Your task to perform on an android device: see tabs open on other devices in the chrome app Image 0: 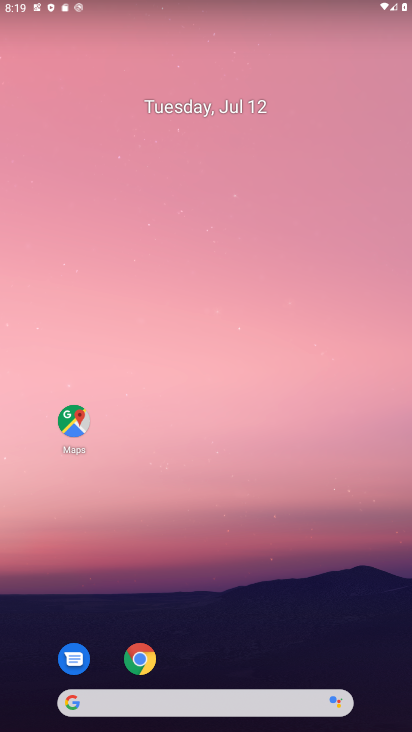
Step 0: click (143, 657)
Your task to perform on an android device: see tabs open on other devices in the chrome app Image 1: 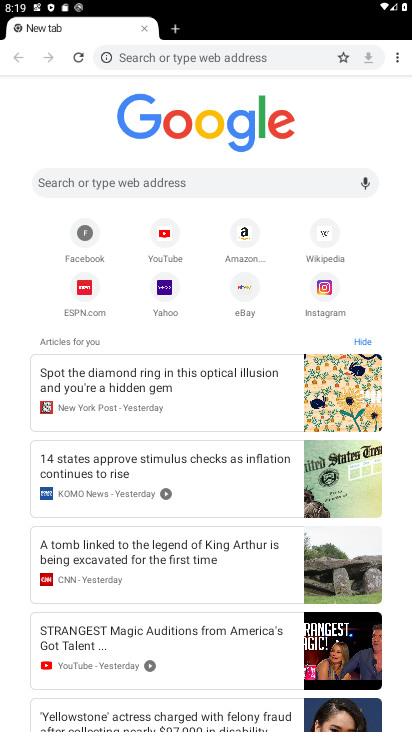
Step 1: click (397, 55)
Your task to perform on an android device: see tabs open on other devices in the chrome app Image 2: 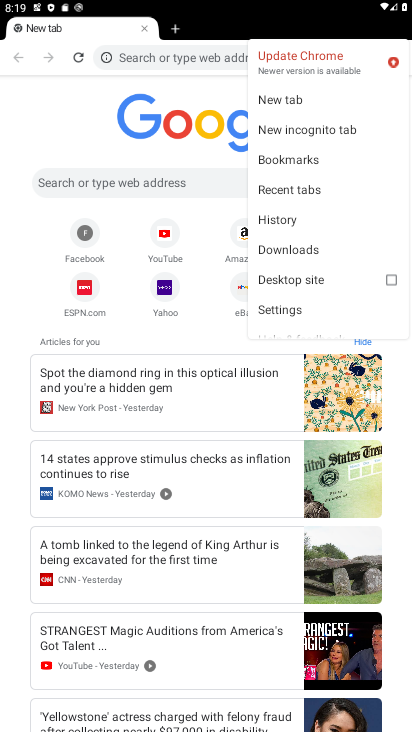
Step 2: click (310, 188)
Your task to perform on an android device: see tabs open on other devices in the chrome app Image 3: 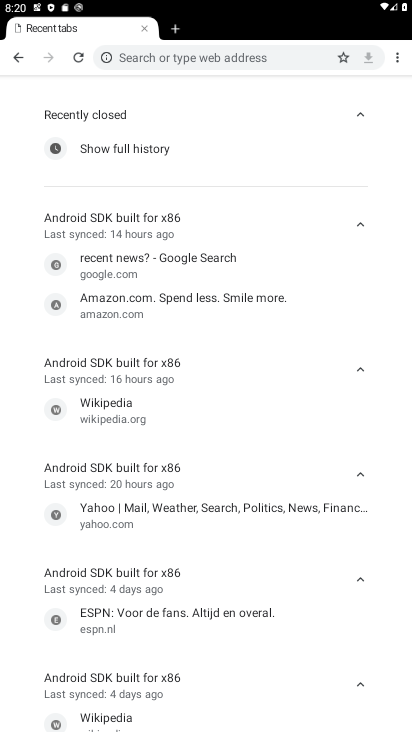
Step 3: task complete